Your task to perform on an android device: Go to notification settings Image 0: 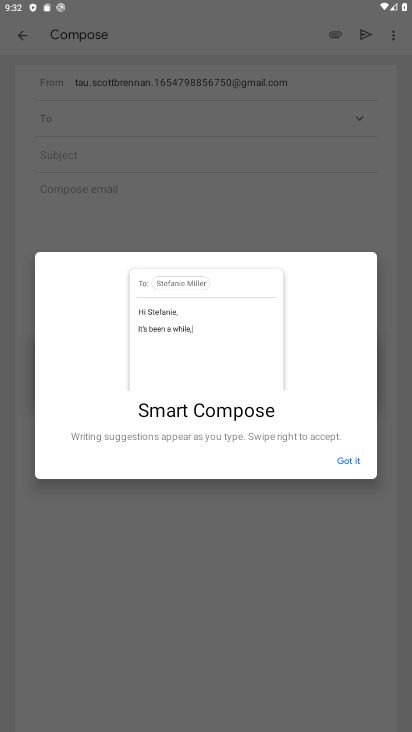
Step 0: press home button
Your task to perform on an android device: Go to notification settings Image 1: 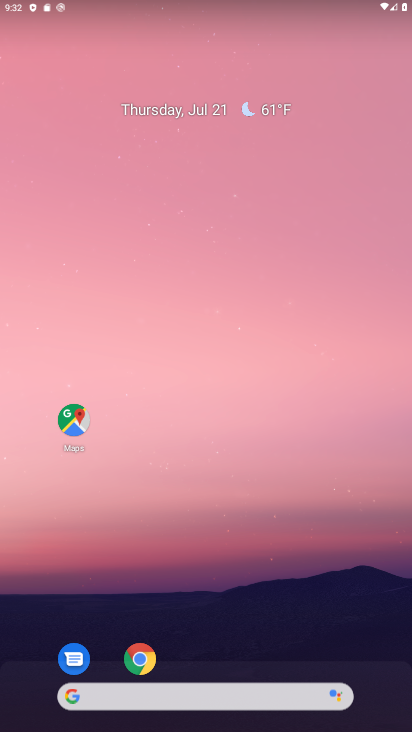
Step 1: drag from (46, 527) to (98, 288)
Your task to perform on an android device: Go to notification settings Image 2: 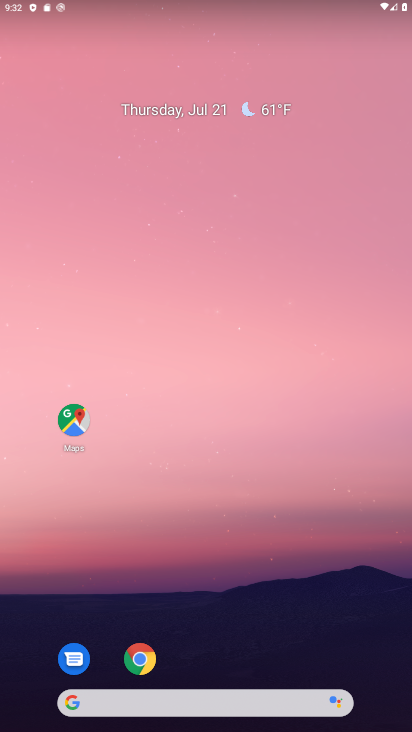
Step 2: drag from (46, 615) to (231, 0)
Your task to perform on an android device: Go to notification settings Image 3: 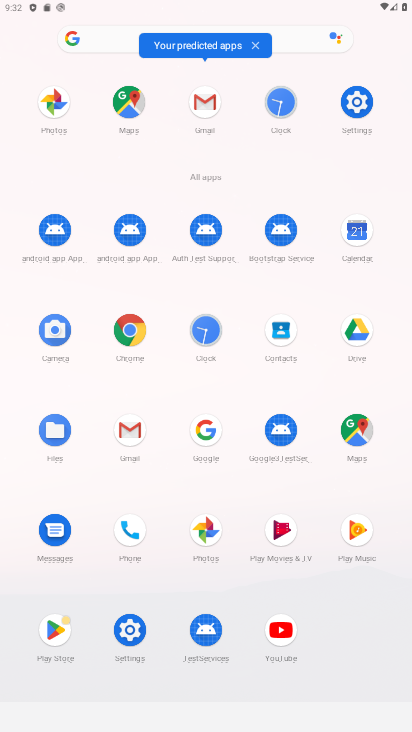
Step 3: click (123, 636)
Your task to perform on an android device: Go to notification settings Image 4: 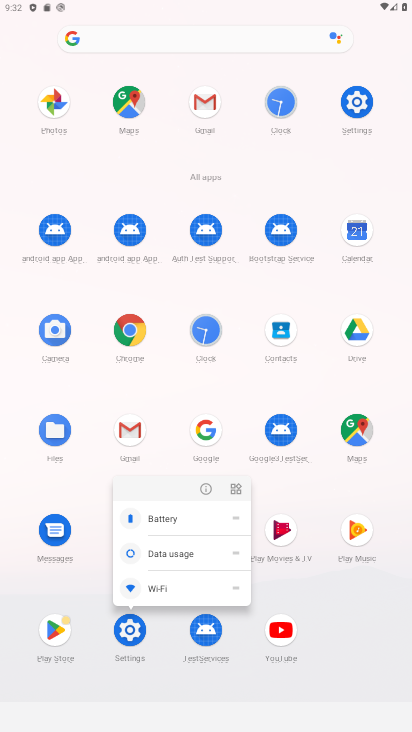
Step 4: click (131, 623)
Your task to perform on an android device: Go to notification settings Image 5: 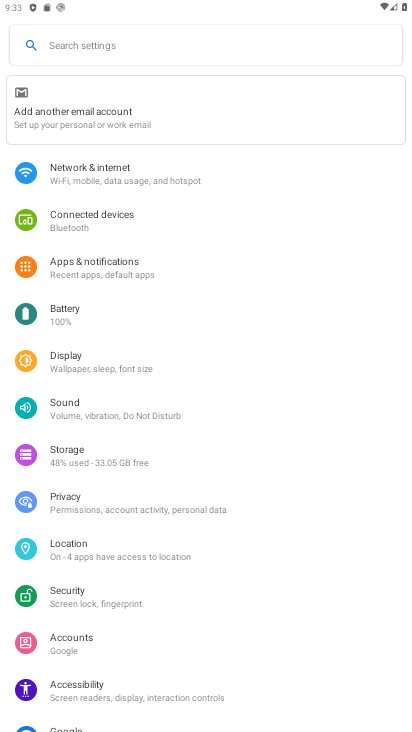
Step 5: click (104, 274)
Your task to perform on an android device: Go to notification settings Image 6: 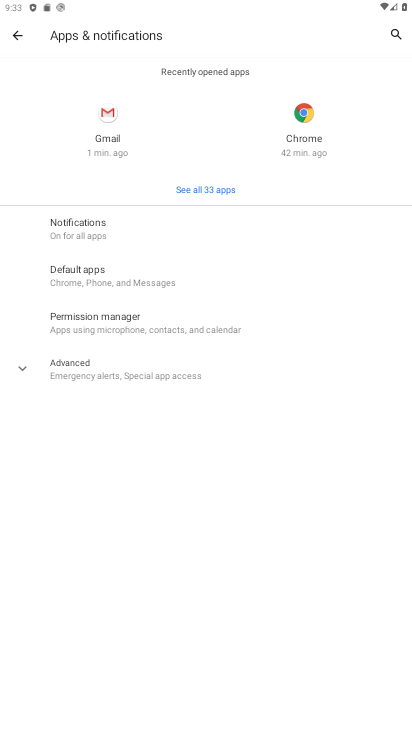
Step 6: task complete